Your task to perform on an android device: Clear all items from cart on bestbuy. Image 0: 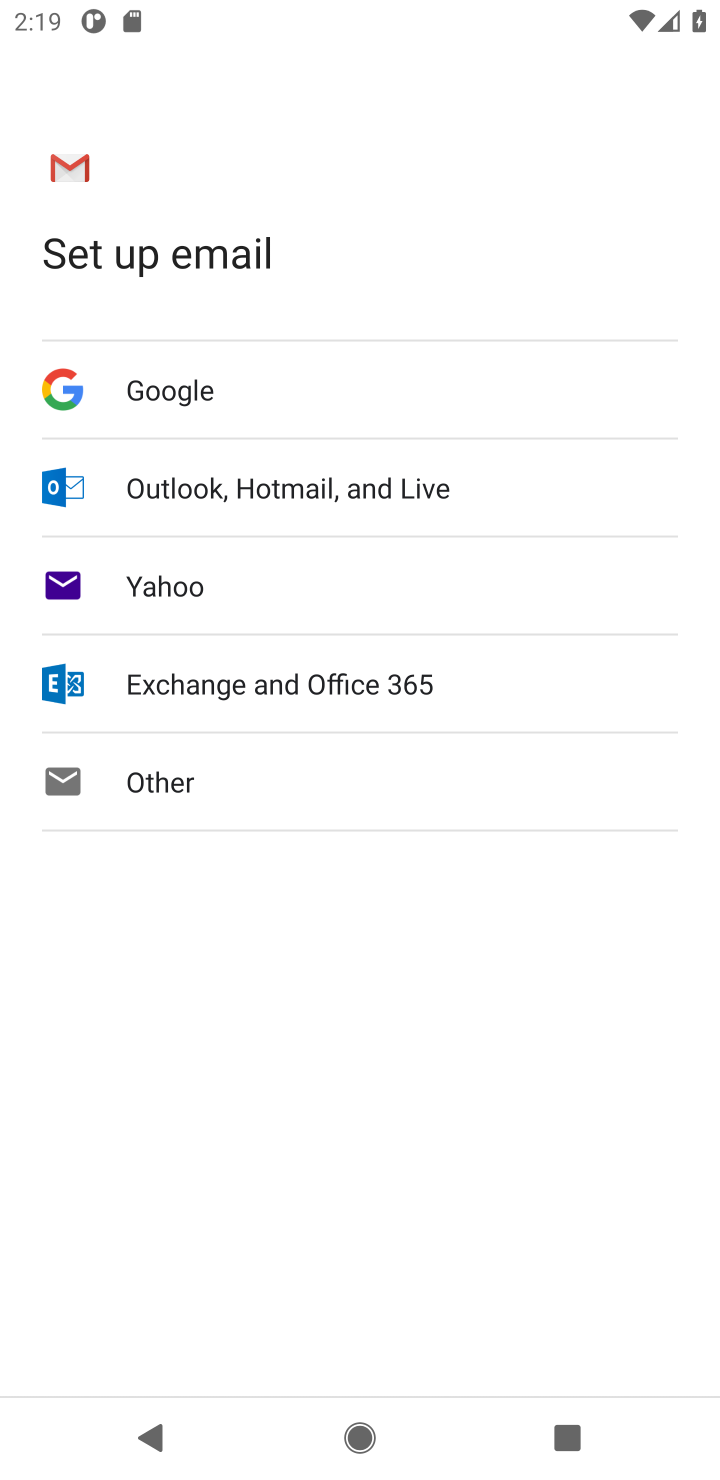
Step 0: press home button
Your task to perform on an android device: Clear all items from cart on bestbuy. Image 1: 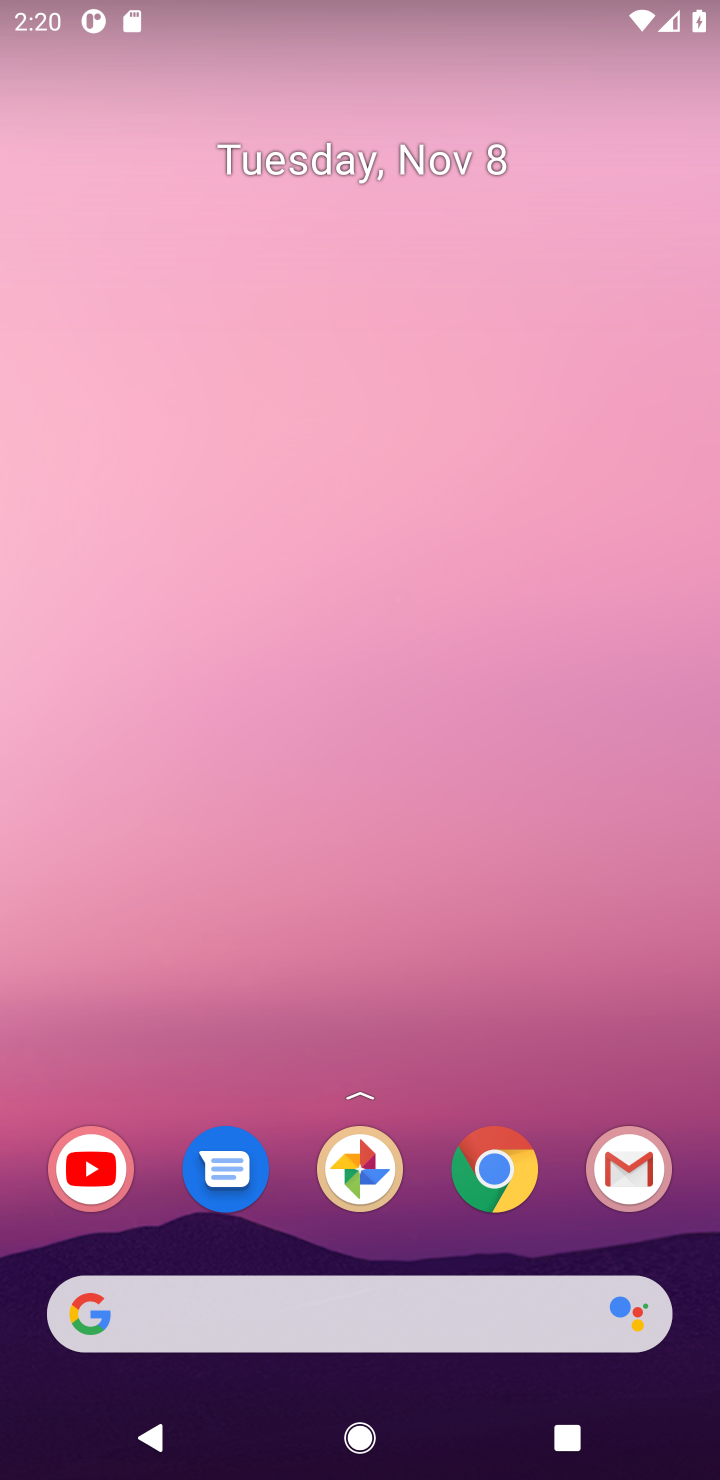
Step 1: click (463, 1176)
Your task to perform on an android device: Clear all items from cart on bestbuy. Image 2: 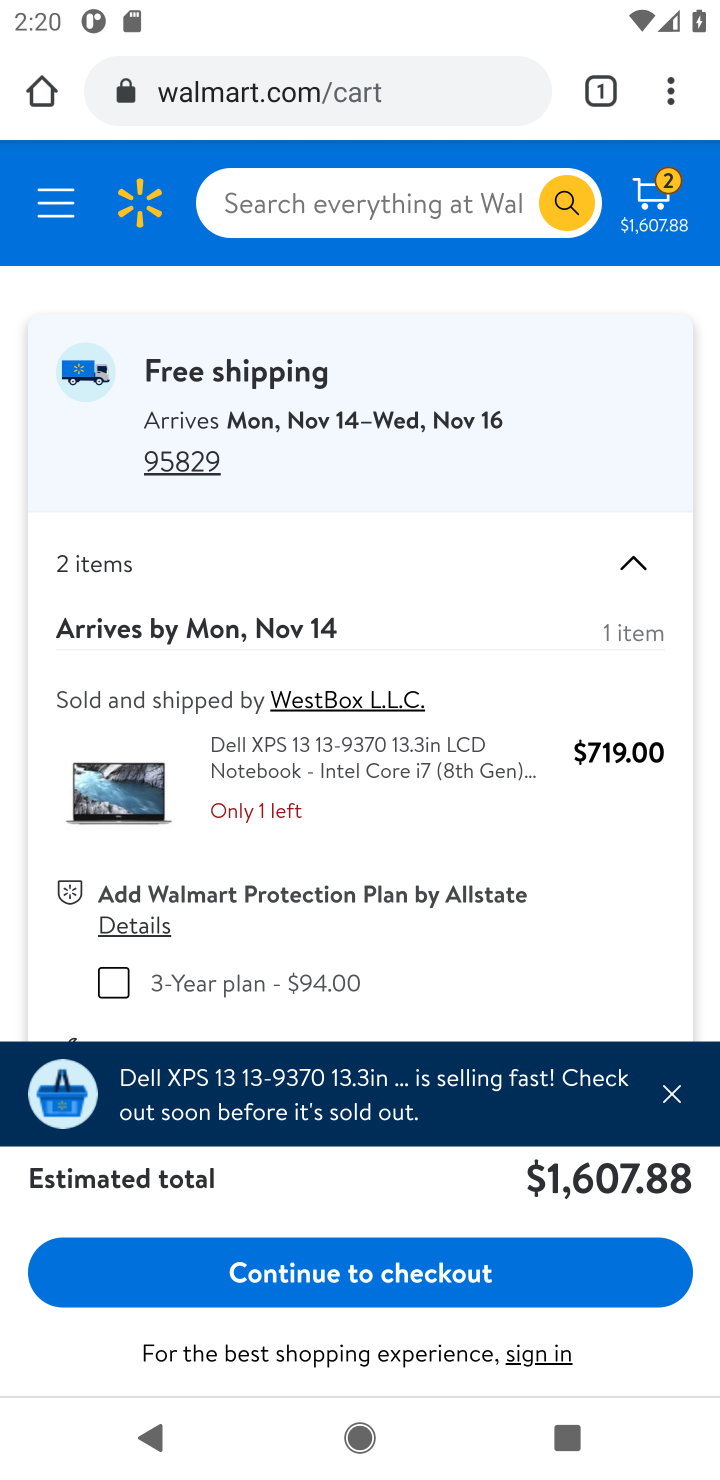
Step 2: click (299, 89)
Your task to perform on an android device: Clear all items from cart on bestbuy. Image 3: 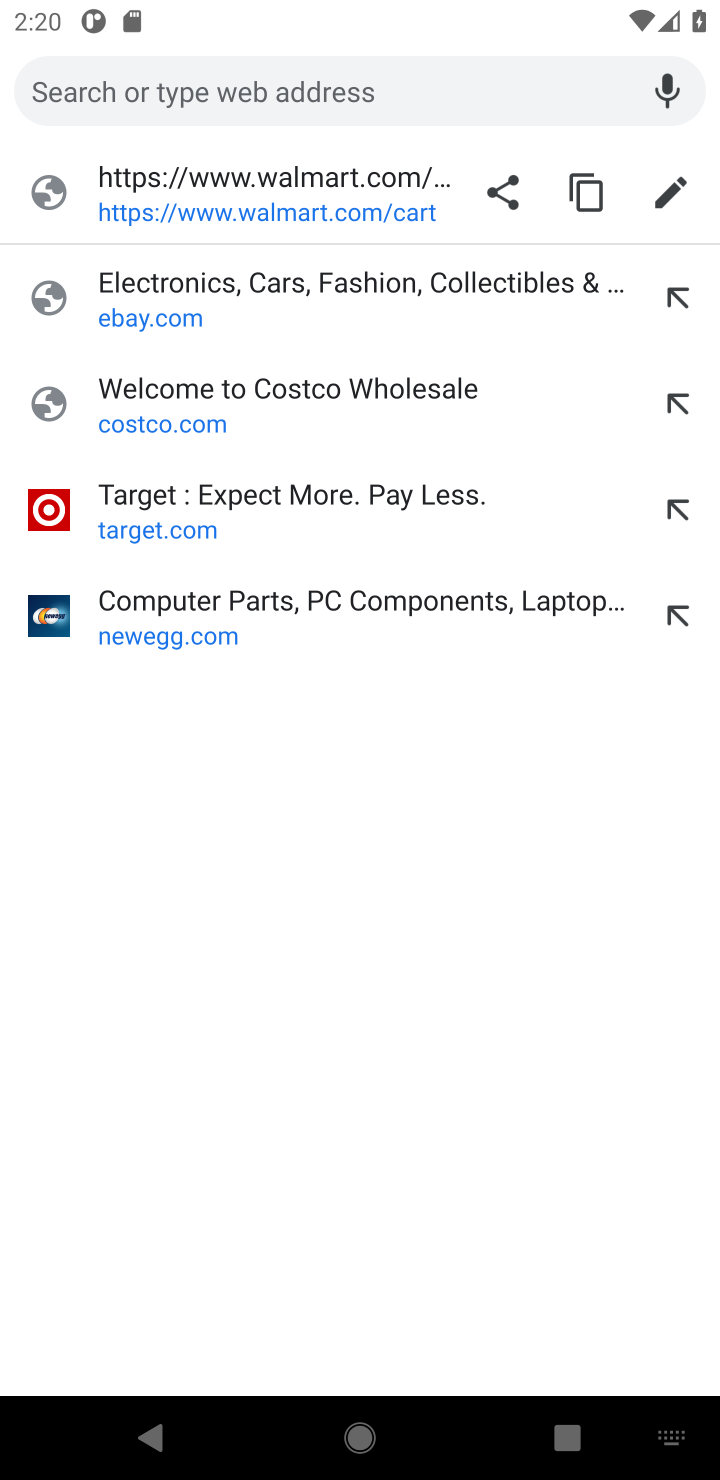
Step 3: type "bestbuy"
Your task to perform on an android device: Clear all items from cart on bestbuy. Image 4: 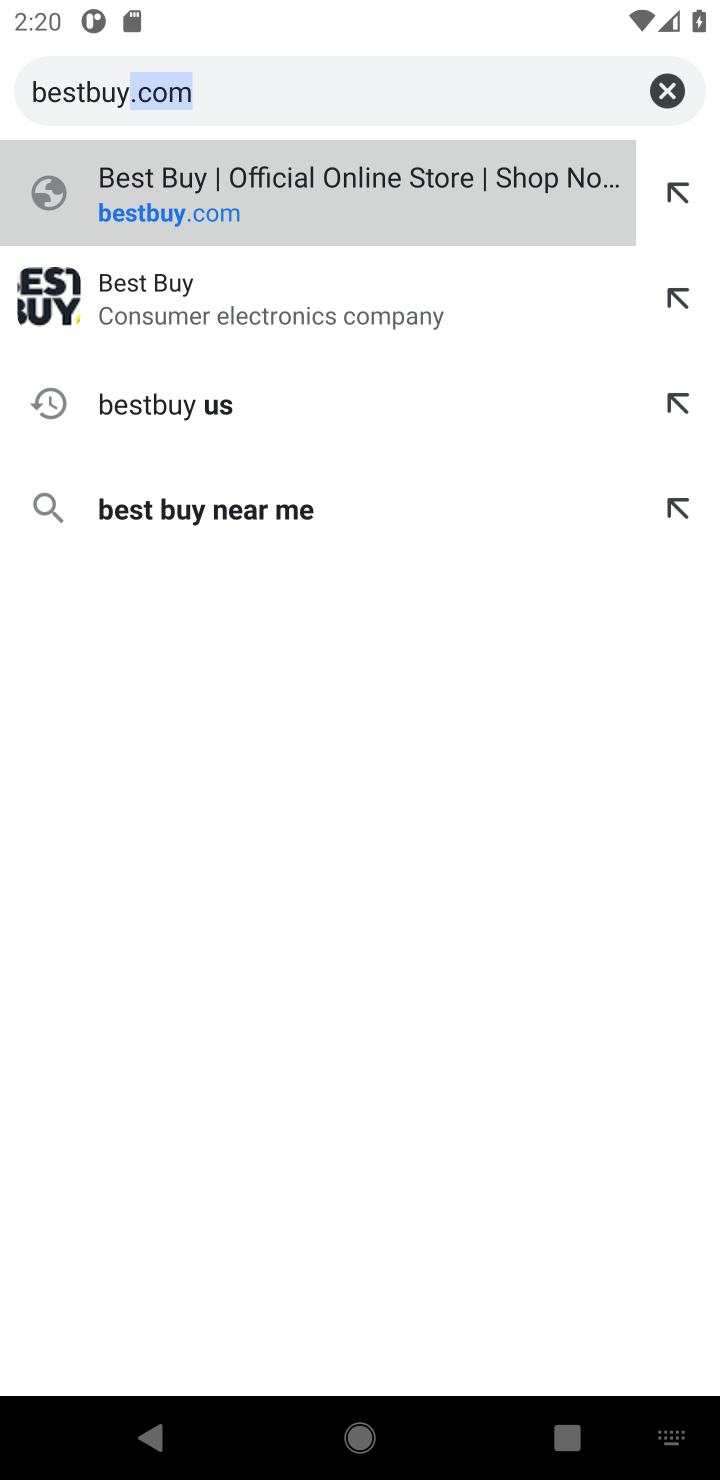
Step 4: click (189, 175)
Your task to perform on an android device: Clear all items from cart on bestbuy. Image 5: 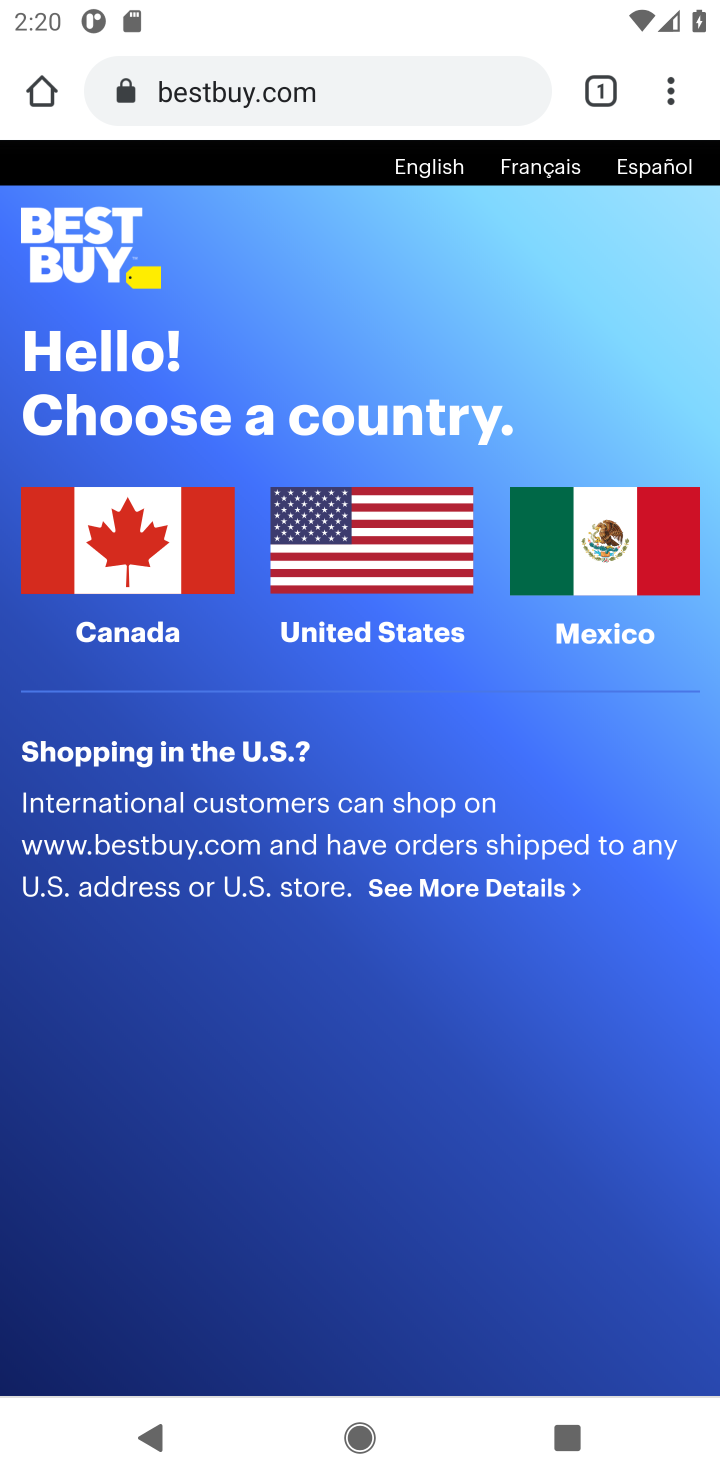
Step 5: click (357, 597)
Your task to perform on an android device: Clear all items from cart on bestbuy. Image 6: 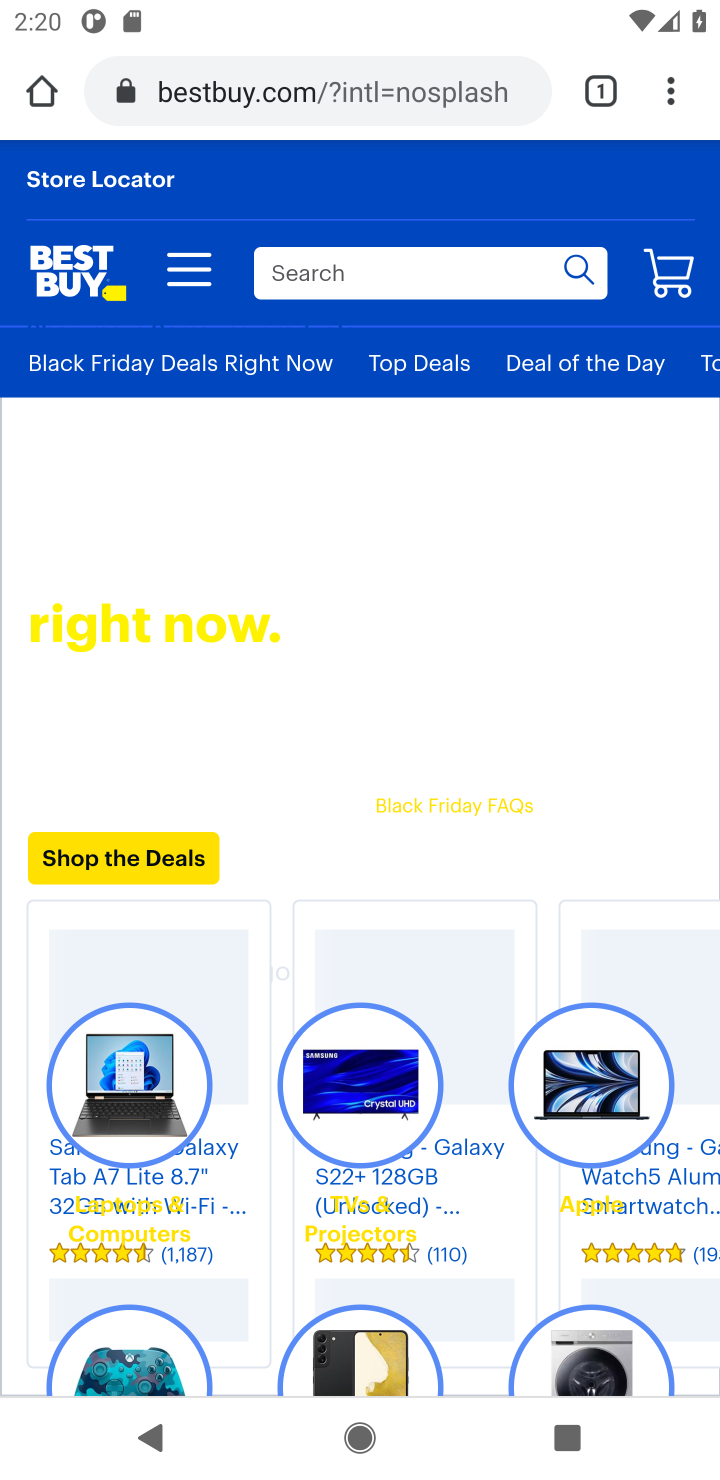
Step 6: click (390, 264)
Your task to perform on an android device: Clear all items from cart on bestbuy. Image 7: 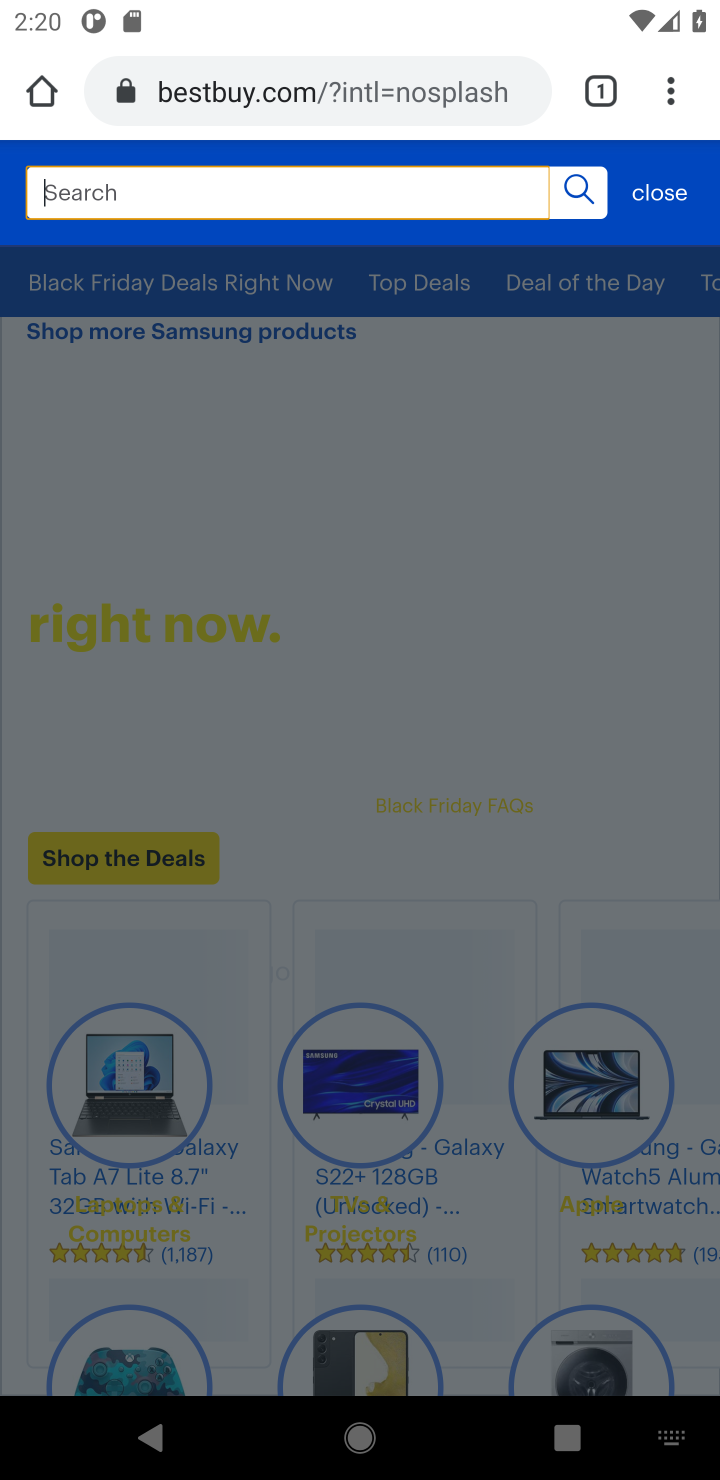
Step 7: click (684, 197)
Your task to perform on an android device: Clear all items from cart on bestbuy. Image 8: 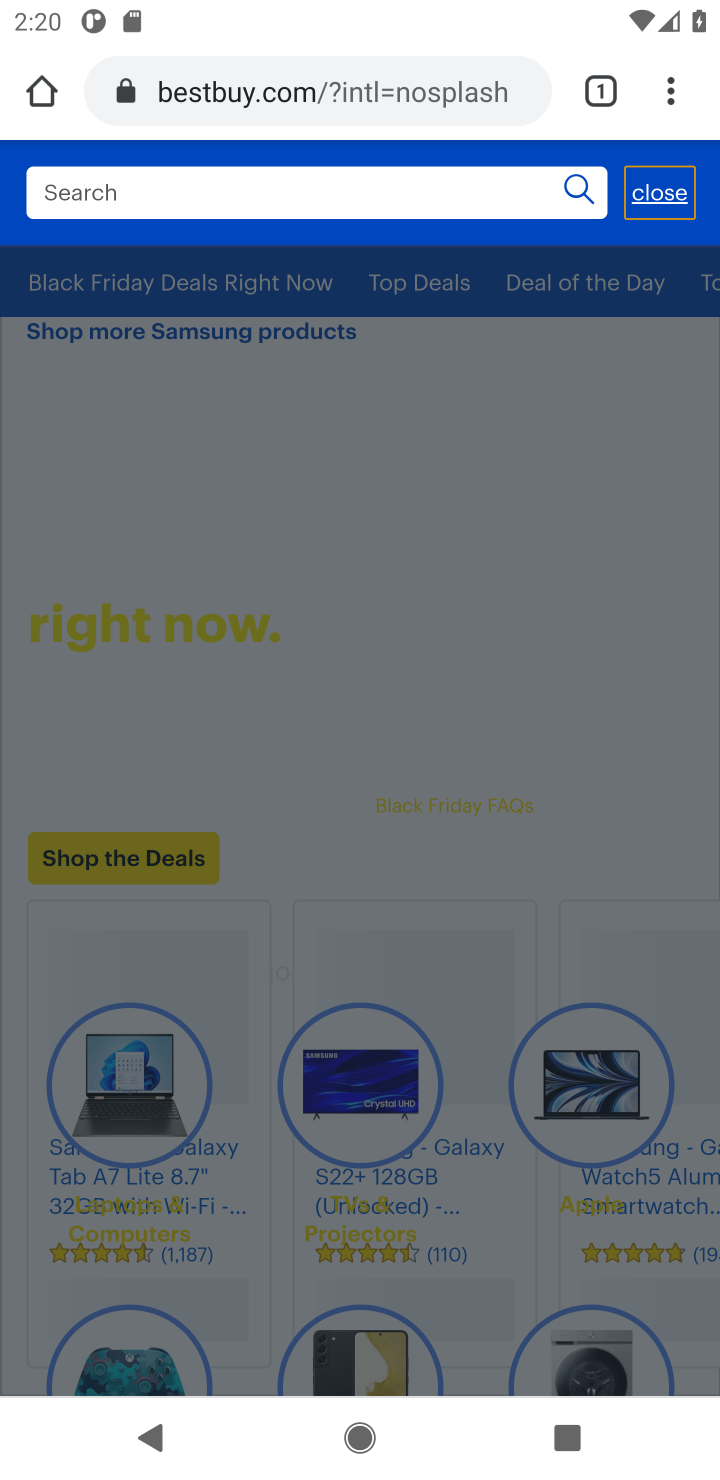
Step 8: click (664, 205)
Your task to perform on an android device: Clear all items from cart on bestbuy. Image 9: 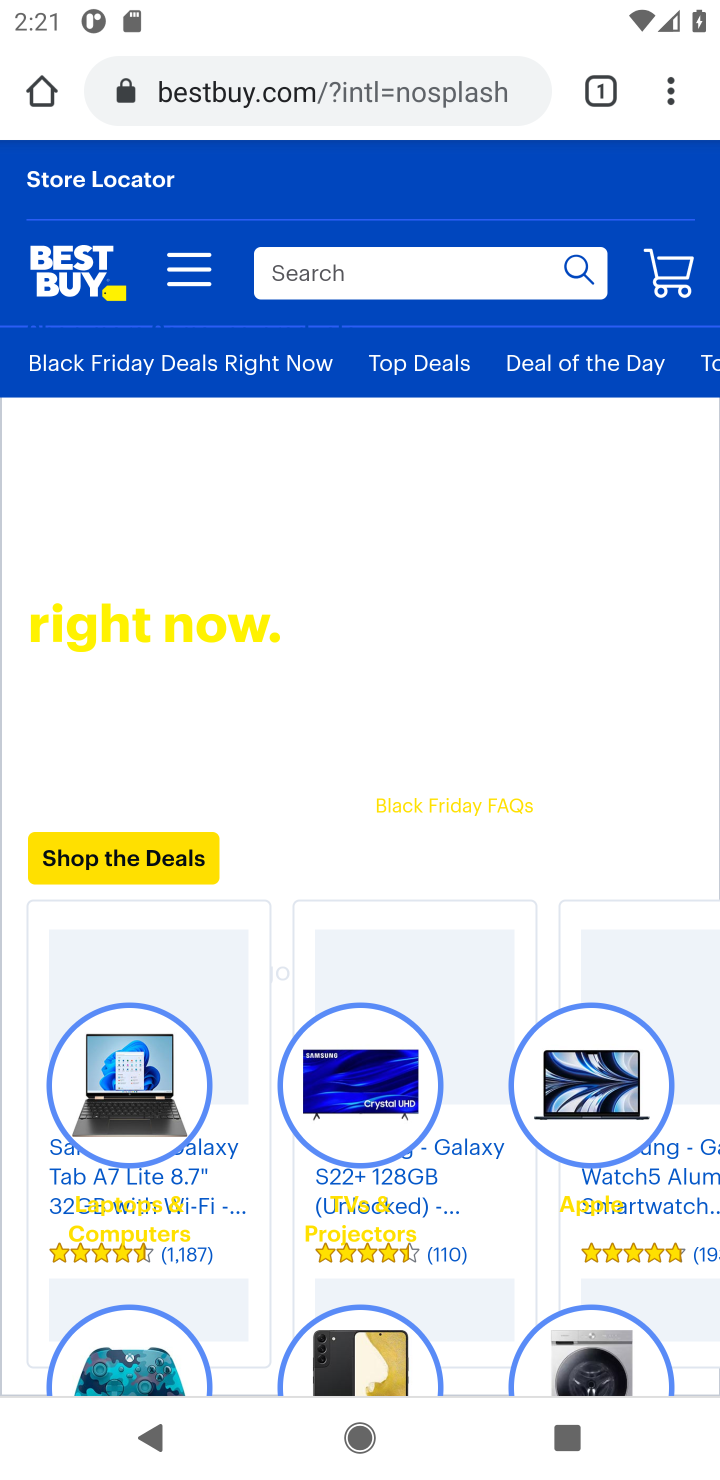
Step 9: click (682, 293)
Your task to perform on an android device: Clear all items from cart on bestbuy. Image 10: 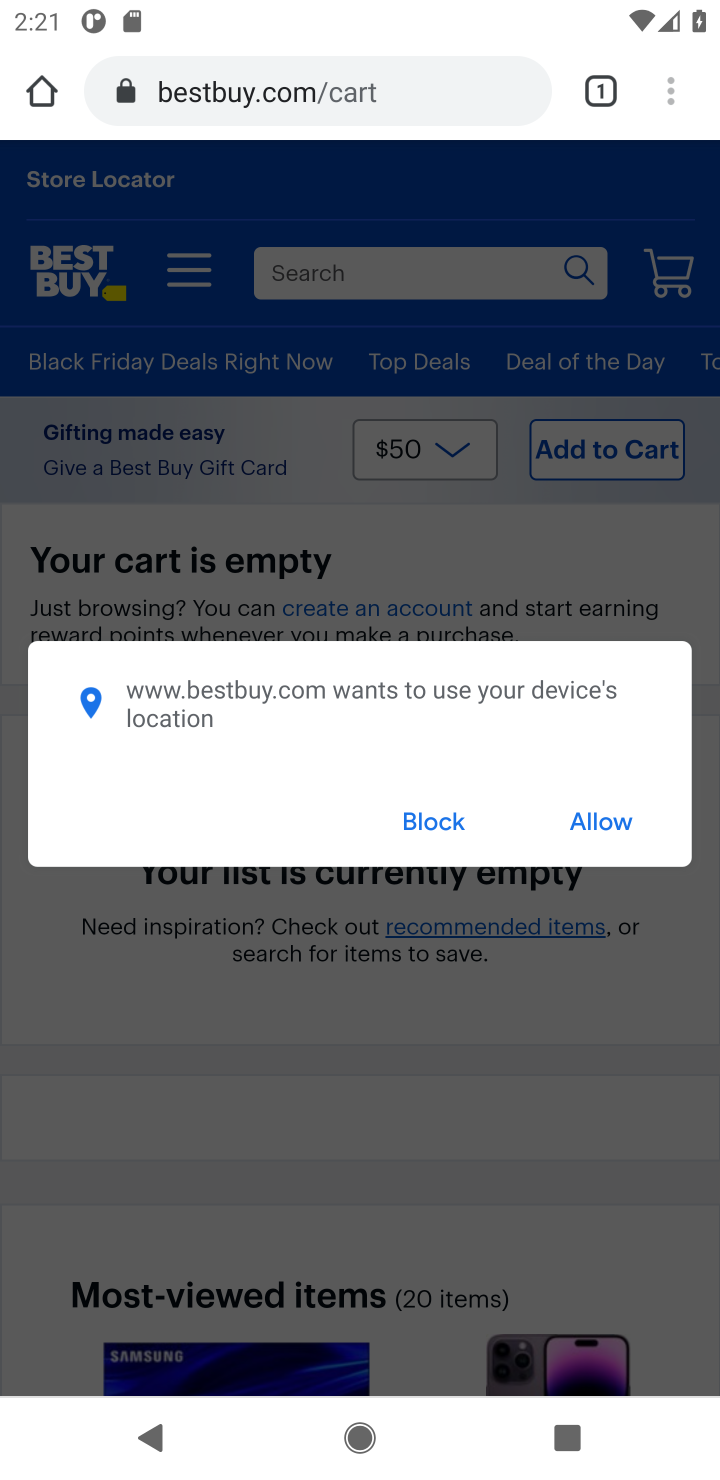
Step 10: click (606, 825)
Your task to perform on an android device: Clear all items from cart on bestbuy. Image 11: 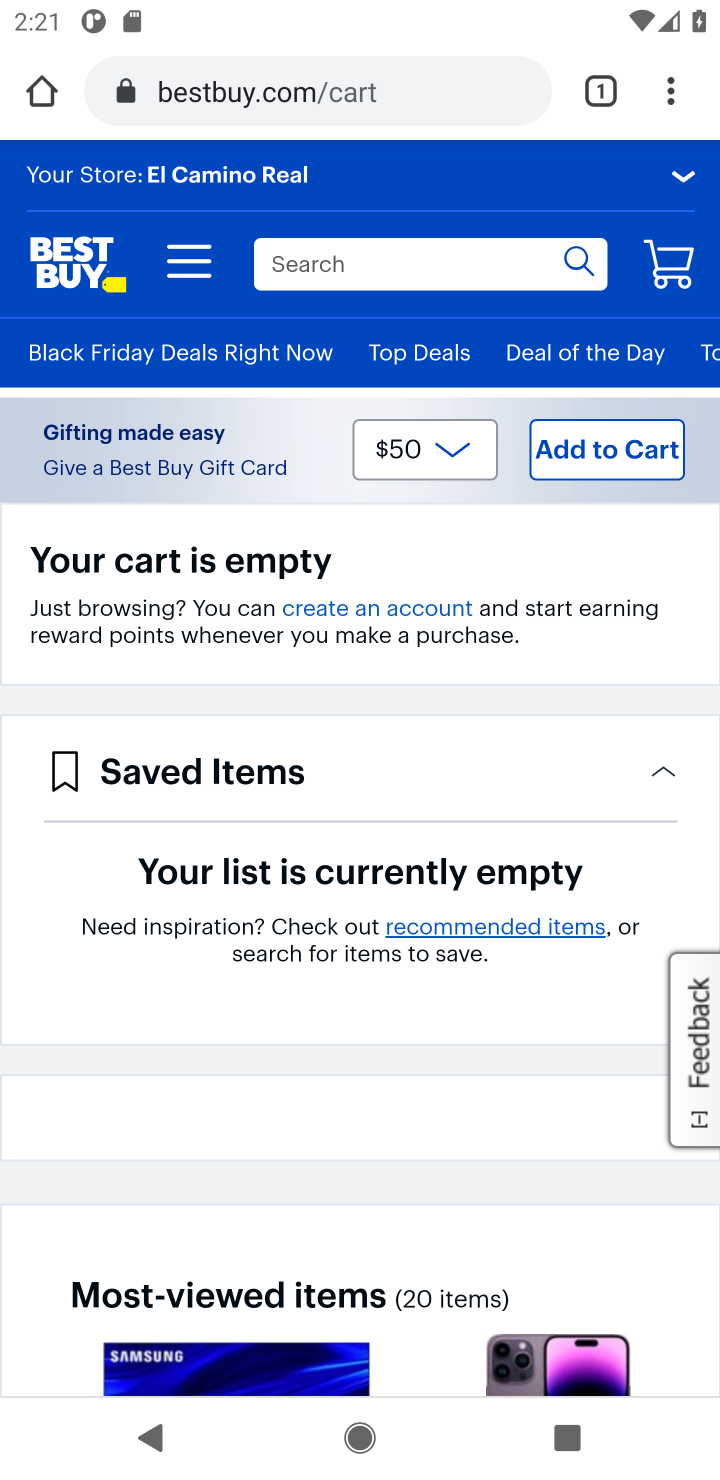
Step 11: click (649, 265)
Your task to perform on an android device: Clear all items from cart on bestbuy. Image 12: 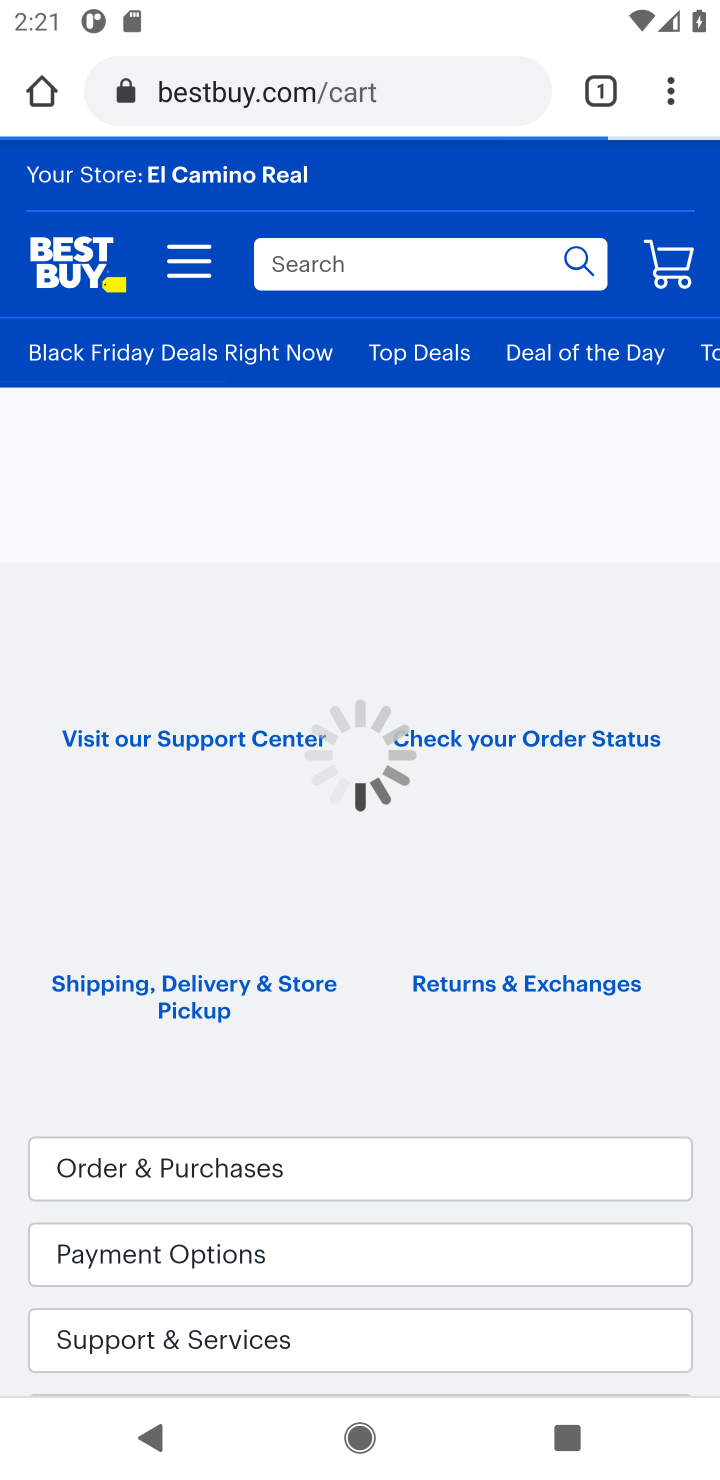
Step 12: task complete